Your task to perform on an android device: stop showing notifications on the lock screen Image 0: 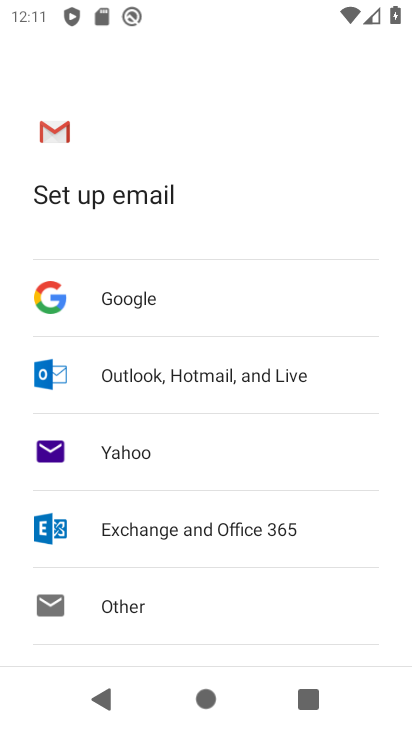
Step 0: press home button
Your task to perform on an android device: stop showing notifications on the lock screen Image 1: 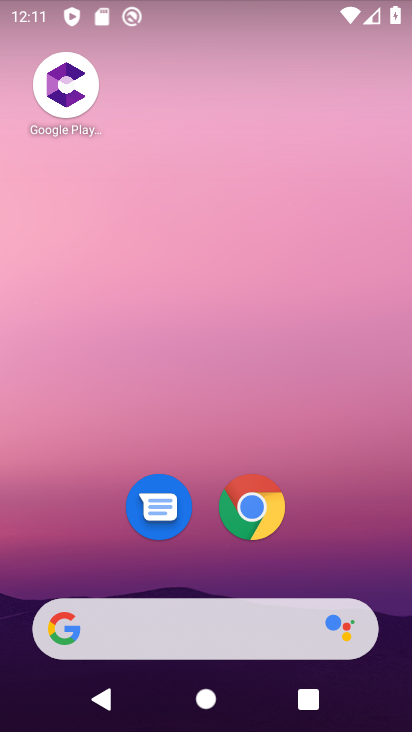
Step 1: drag from (228, 575) to (241, 9)
Your task to perform on an android device: stop showing notifications on the lock screen Image 2: 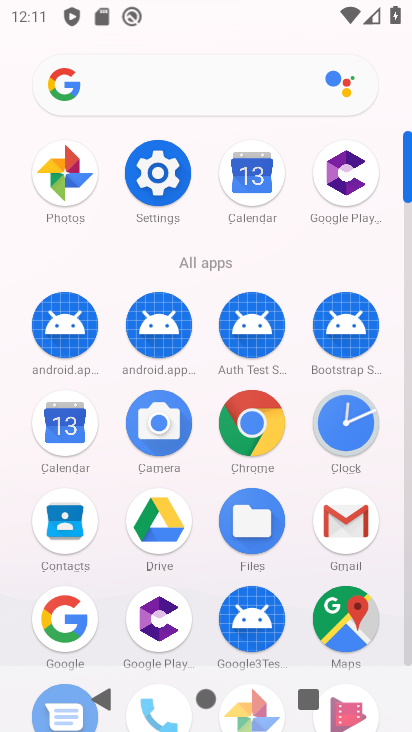
Step 2: click (163, 142)
Your task to perform on an android device: stop showing notifications on the lock screen Image 3: 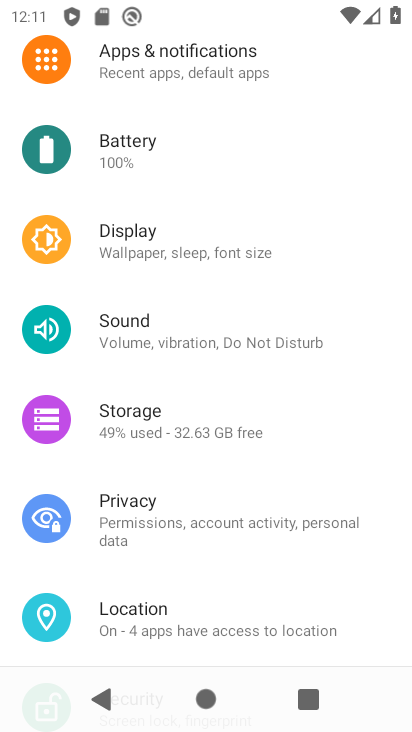
Step 3: click (140, 90)
Your task to perform on an android device: stop showing notifications on the lock screen Image 4: 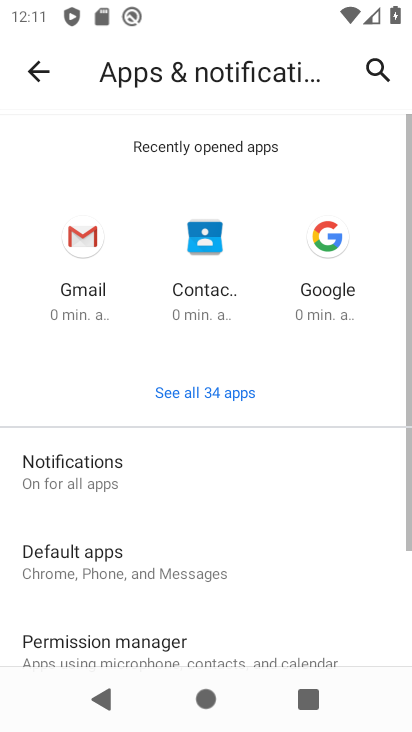
Step 4: click (126, 470)
Your task to perform on an android device: stop showing notifications on the lock screen Image 5: 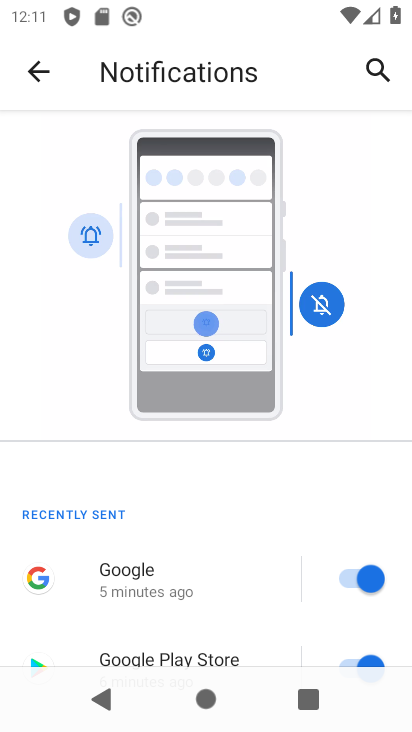
Step 5: drag from (314, 607) to (279, 28)
Your task to perform on an android device: stop showing notifications on the lock screen Image 6: 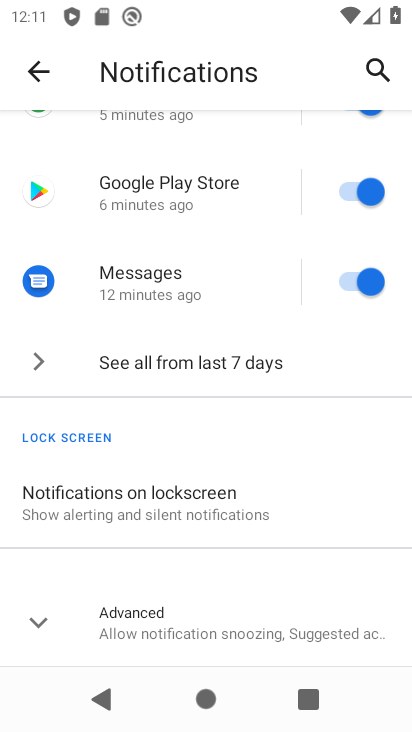
Step 6: click (145, 499)
Your task to perform on an android device: stop showing notifications on the lock screen Image 7: 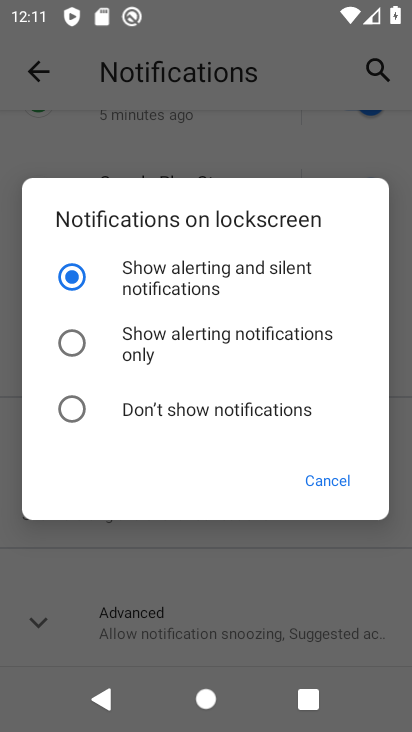
Step 7: click (129, 412)
Your task to perform on an android device: stop showing notifications on the lock screen Image 8: 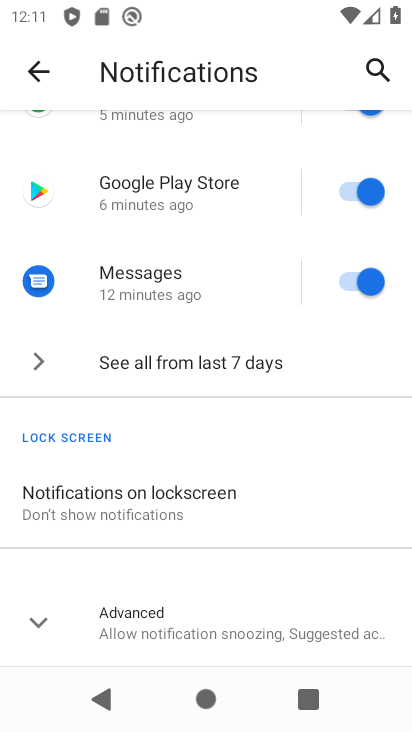
Step 8: task complete